Your task to perform on an android device: change text size in settings app Image 0: 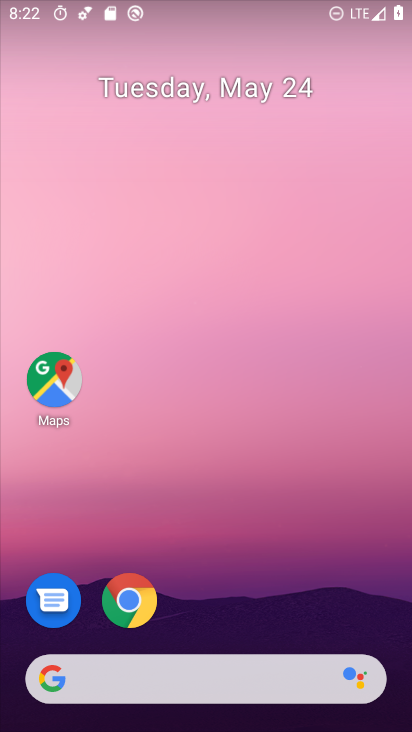
Step 0: drag from (241, 617) to (259, 47)
Your task to perform on an android device: change text size in settings app Image 1: 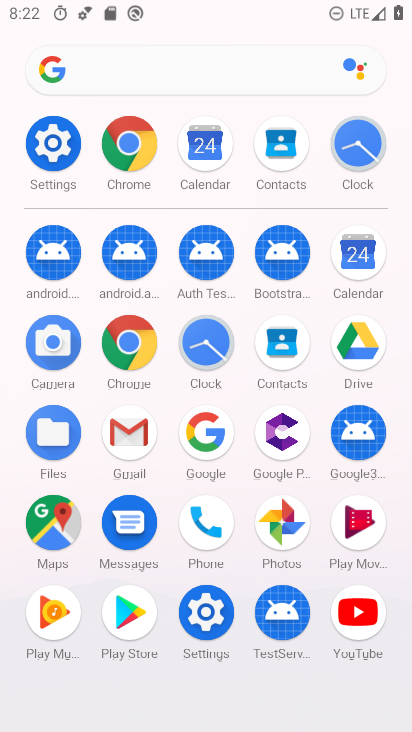
Step 1: click (43, 132)
Your task to perform on an android device: change text size in settings app Image 2: 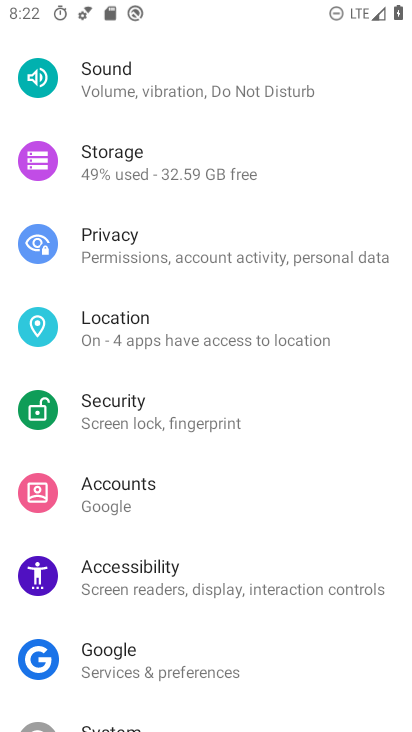
Step 2: drag from (207, 133) to (159, 695)
Your task to perform on an android device: change text size in settings app Image 3: 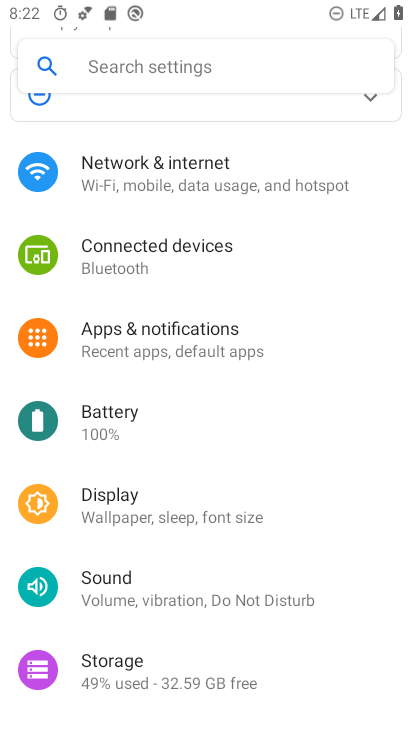
Step 3: click (200, 57)
Your task to perform on an android device: change text size in settings app Image 4: 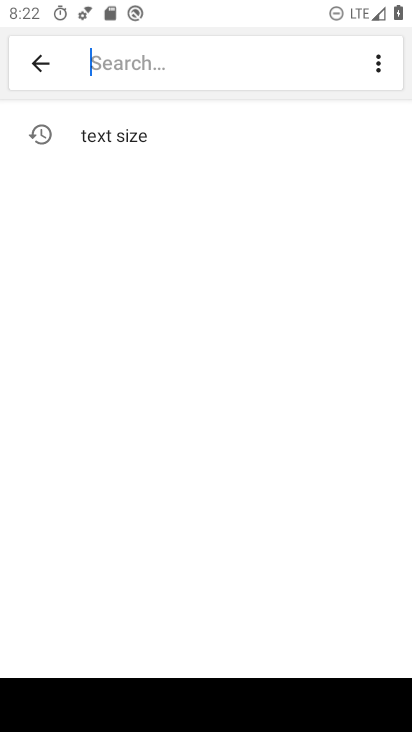
Step 4: type "yext "
Your task to perform on an android device: change text size in settings app Image 5: 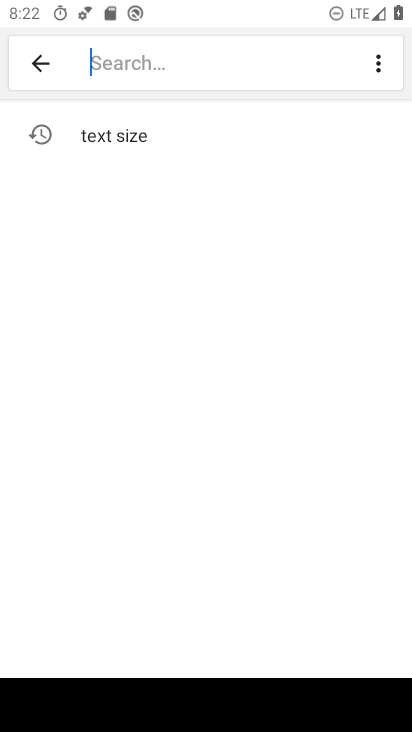
Step 5: click (111, 138)
Your task to perform on an android device: change text size in settings app Image 6: 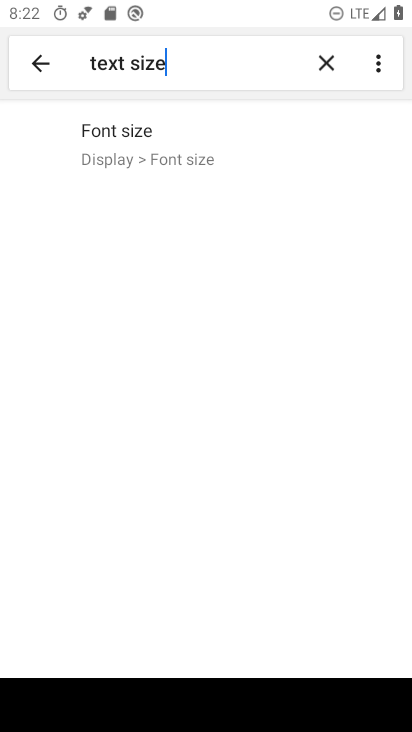
Step 6: click (153, 149)
Your task to perform on an android device: change text size in settings app Image 7: 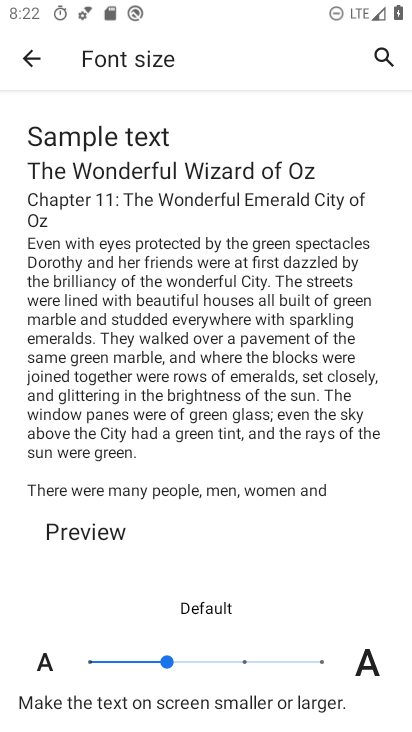
Step 7: task complete